Your task to perform on an android device: turn smart compose on in the gmail app Image 0: 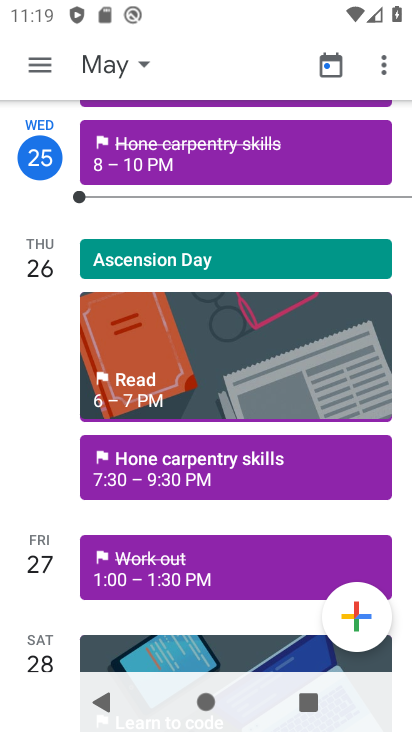
Step 0: press home button
Your task to perform on an android device: turn smart compose on in the gmail app Image 1: 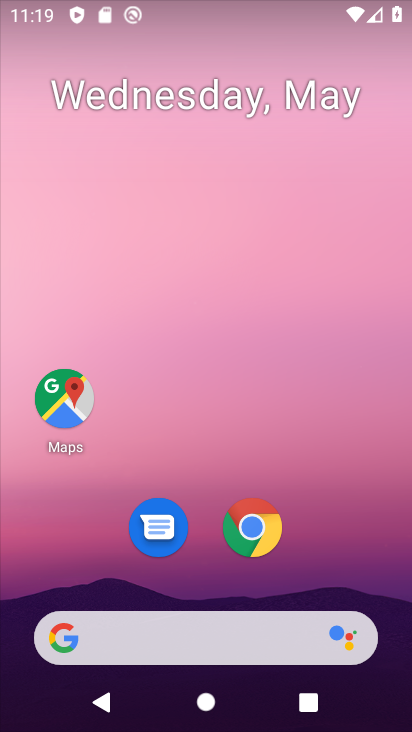
Step 1: drag from (355, 542) to (392, 66)
Your task to perform on an android device: turn smart compose on in the gmail app Image 2: 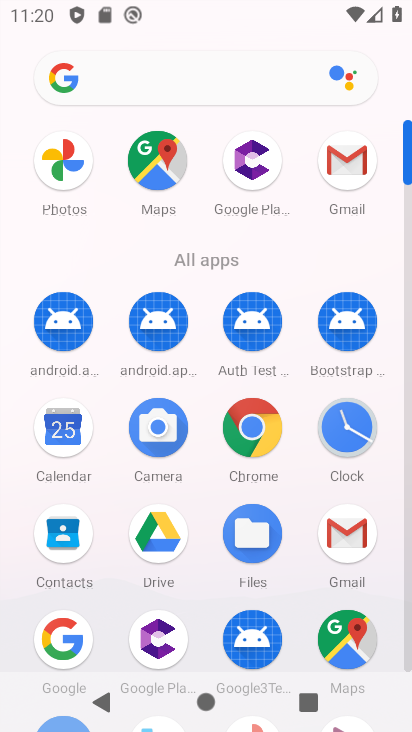
Step 2: click (333, 154)
Your task to perform on an android device: turn smart compose on in the gmail app Image 3: 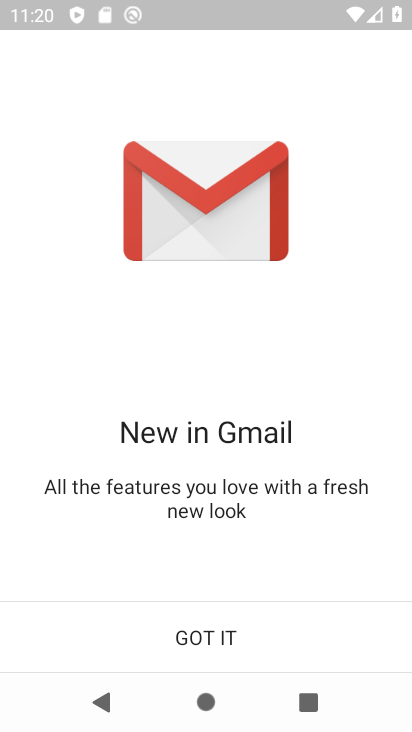
Step 3: click (202, 635)
Your task to perform on an android device: turn smart compose on in the gmail app Image 4: 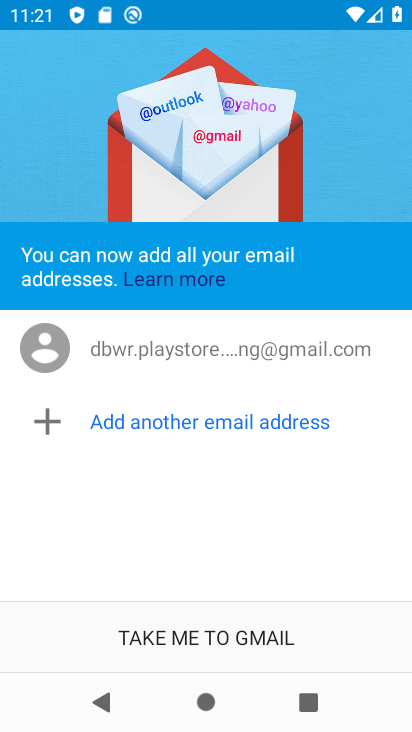
Step 4: click (121, 659)
Your task to perform on an android device: turn smart compose on in the gmail app Image 5: 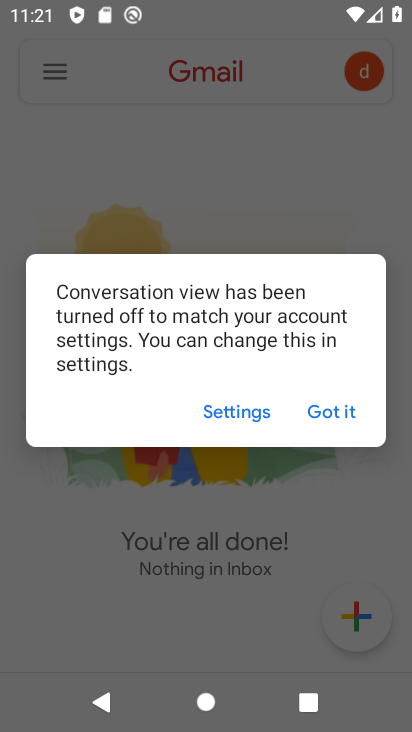
Step 5: click (343, 425)
Your task to perform on an android device: turn smart compose on in the gmail app Image 6: 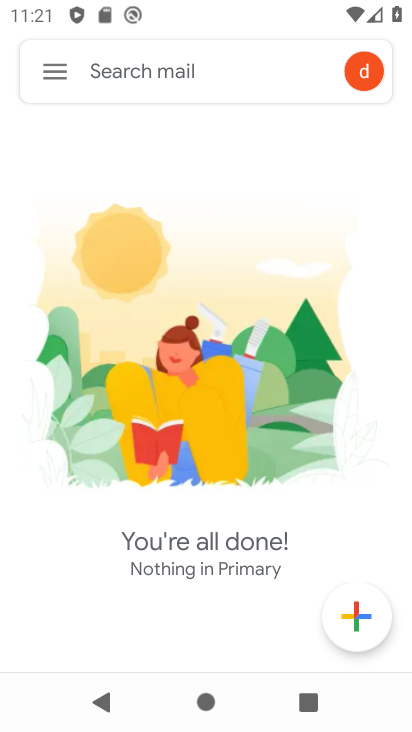
Step 6: click (66, 84)
Your task to perform on an android device: turn smart compose on in the gmail app Image 7: 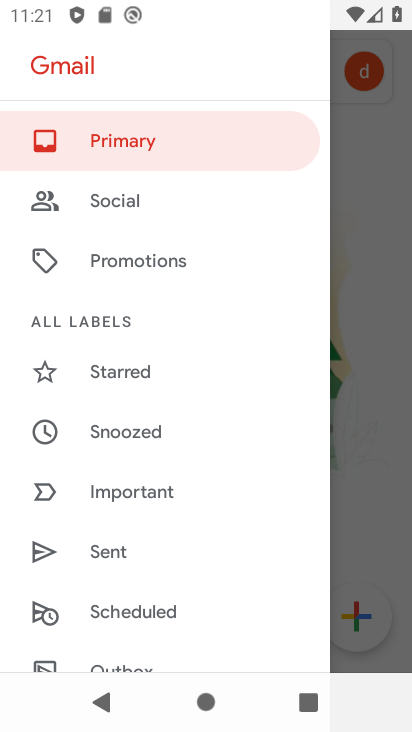
Step 7: drag from (148, 631) to (222, 159)
Your task to perform on an android device: turn smart compose on in the gmail app Image 8: 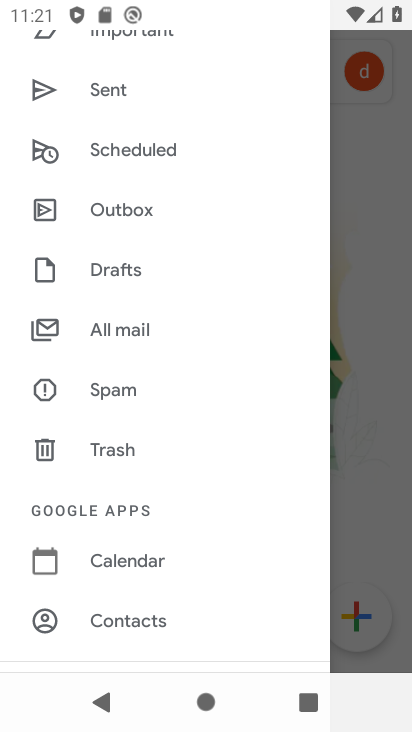
Step 8: drag from (177, 587) to (130, 244)
Your task to perform on an android device: turn smart compose on in the gmail app Image 9: 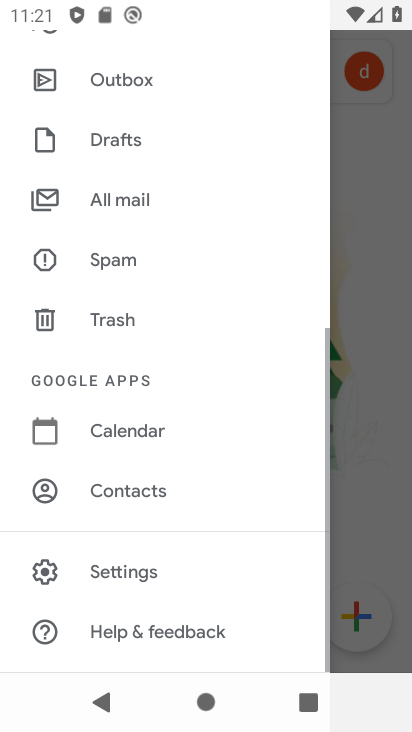
Step 9: click (147, 568)
Your task to perform on an android device: turn smart compose on in the gmail app Image 10: 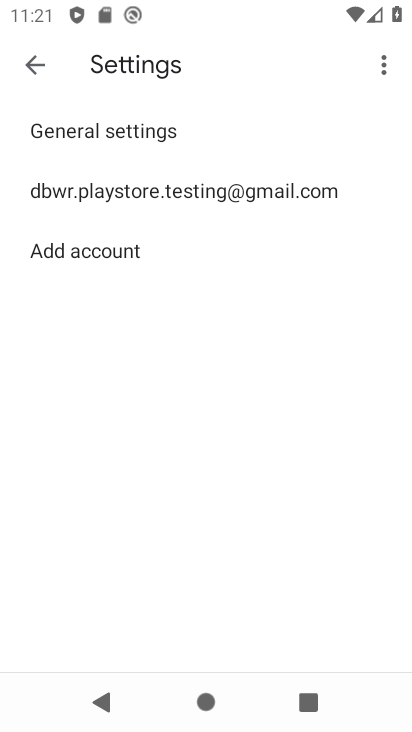
Step 10: click (84, 191)
Your task to perform on an android device: turn smart compose on in the gmail app Image 11: 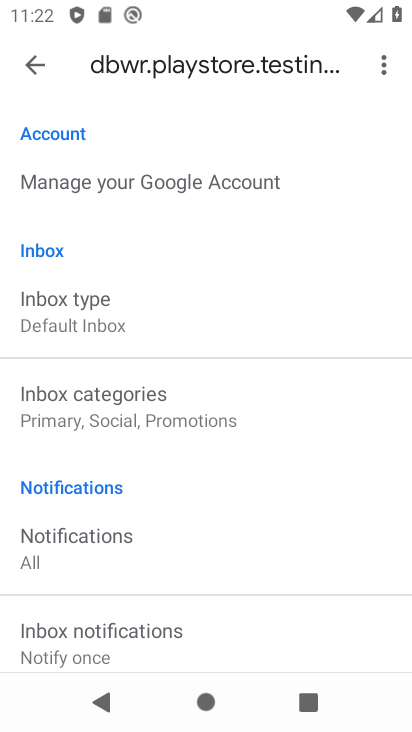
Step 11: task complete